Your task to perform on an android device: add a contact in the contacts app Image 0: 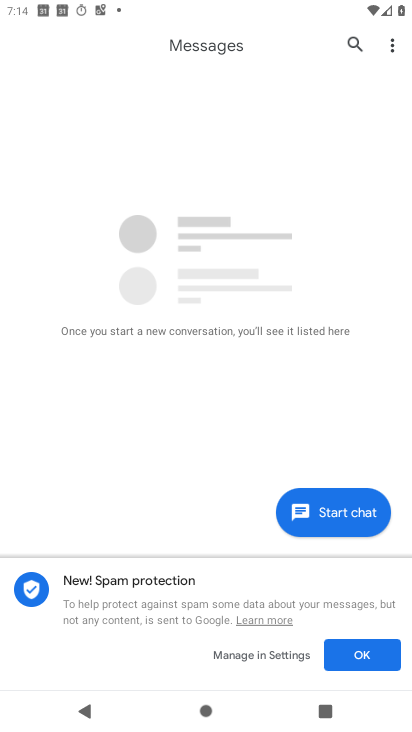
Step 0: press back button
Your task to perform on an android device: add a contact in the contacts app Image 1: 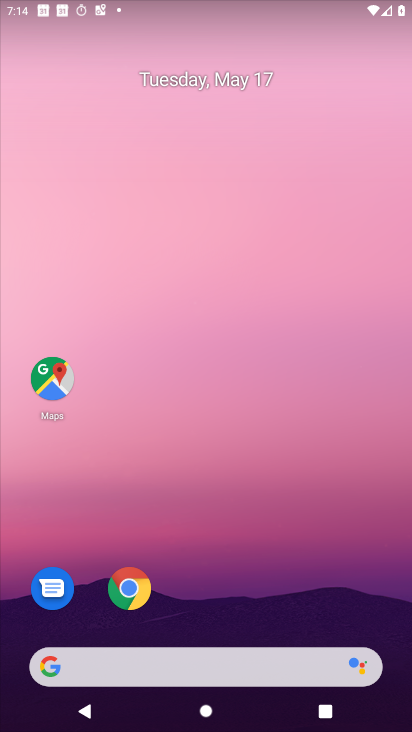
Step 1: drag from (234, 582) to (192, 193)
Your task to perform on an android device: add a contact in the contacts app Image 2: 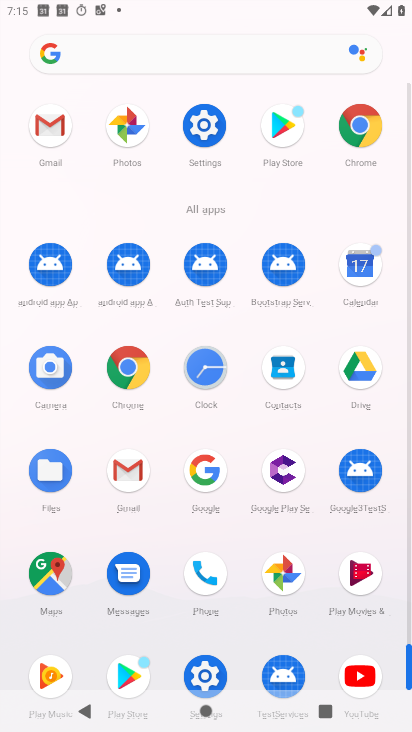
Step 2: click (281, 368)
Your task to perform on an android device: add a contact in the contacts app Image 3: 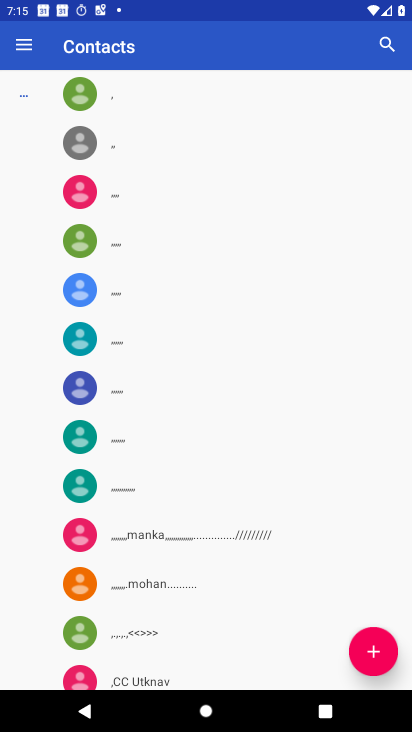
Step 3: click (380, 657)
Your task to perform on an android device: add a contact in the contacts app Image 4: 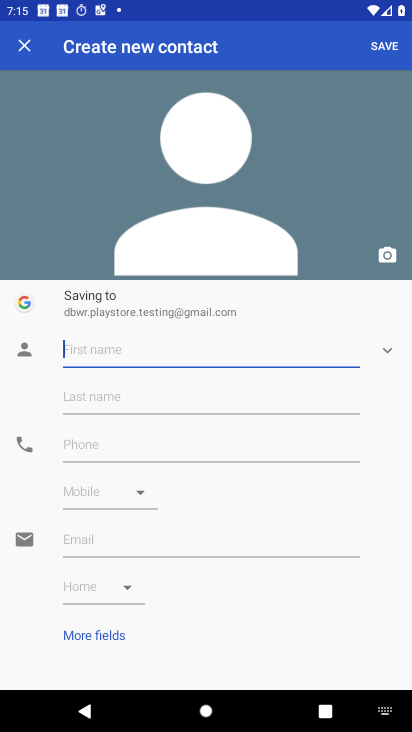
Step 4: type "Venkatesh"
Your task to perform on an android device: add a contact in the contacts app Image 5: 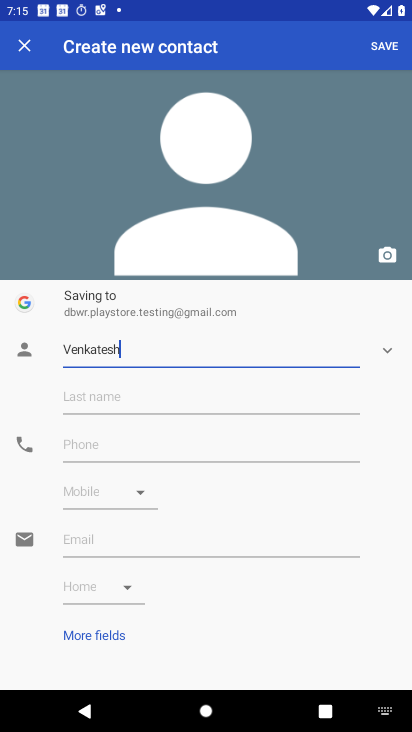
Step 5: type ""
Your task to perform on an android device: add a contact in the contacts app Image 6: 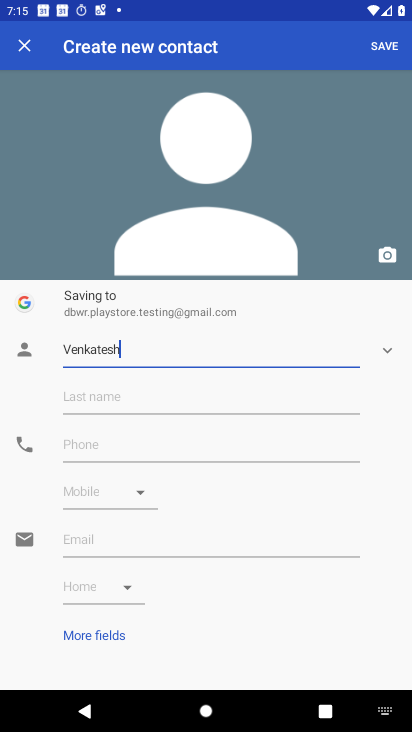
Step 6: click (172, 397)
Your task to perform on an android device: add a contact in the contacts app Image 7: 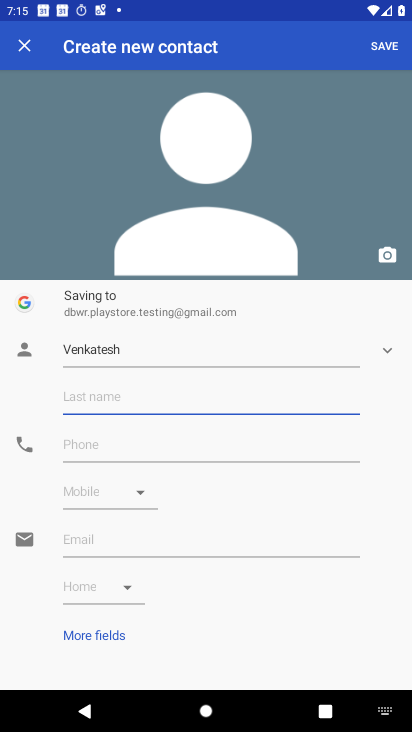
Step 7: type "Prasad"
Your task to perform on an android device: add a contact in the contacts app Image 8: 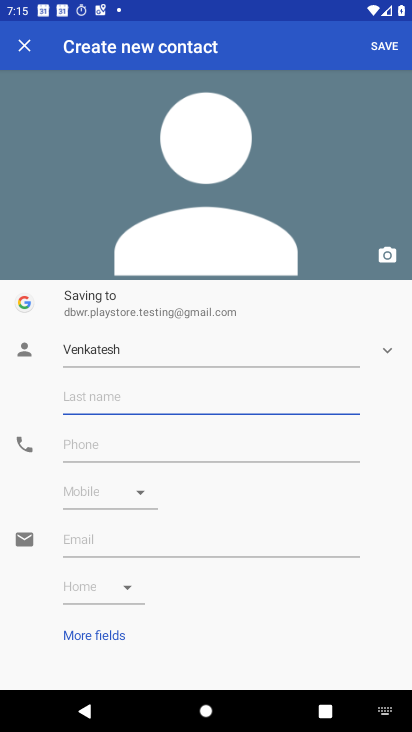
Step 8: click (139, 447)
Your task to perform on an android device: add a contact in the contacts app Image 9: 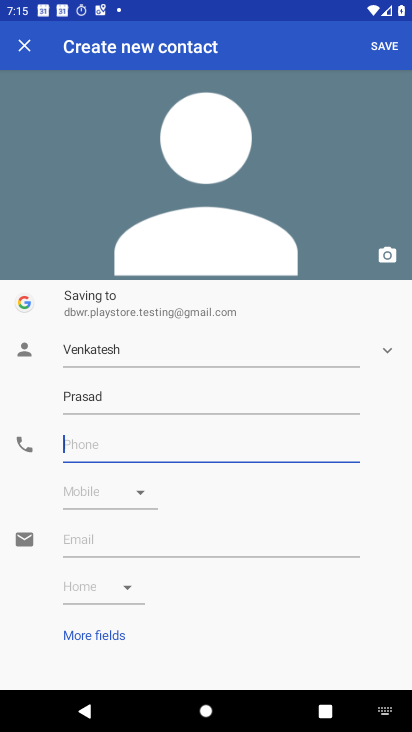
Step 9: type "0987654321"
Your task to perform on an android device: add a contact in the contacts app Image 10: 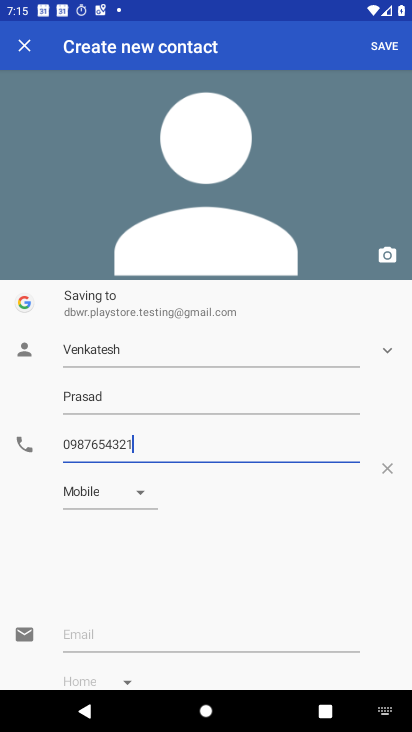
Step 10: type ""
Your task to perform on an android device: add a contact in the contacts app Image 11: 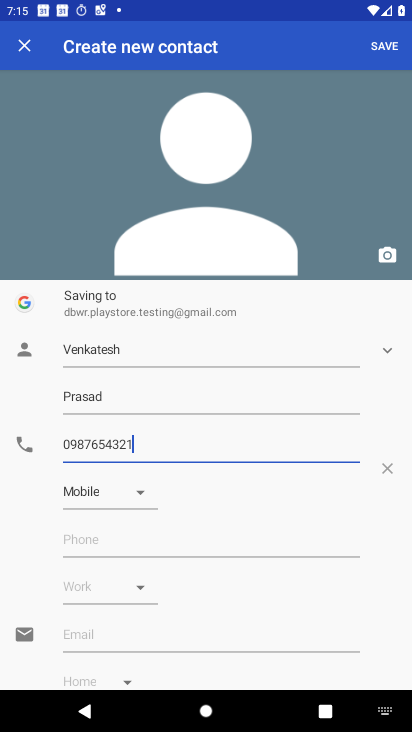
Step 11: click (376, 46)
Your task to perform on an android device: add a contact in the contacts app Image 12: 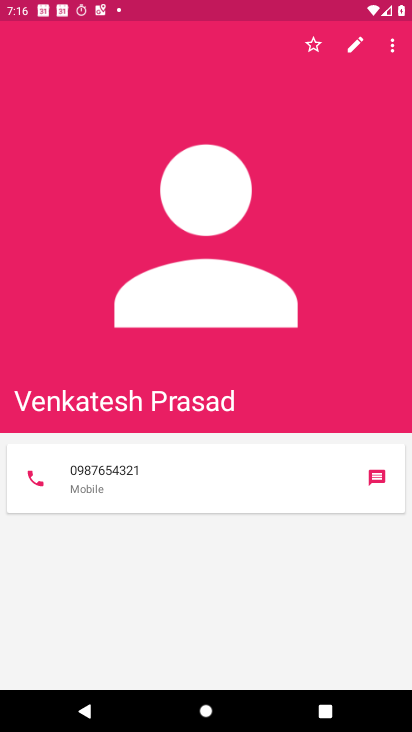
Step 12: task complete